Your task to perform on an android device: toggle translation in the chrome app Image 0: 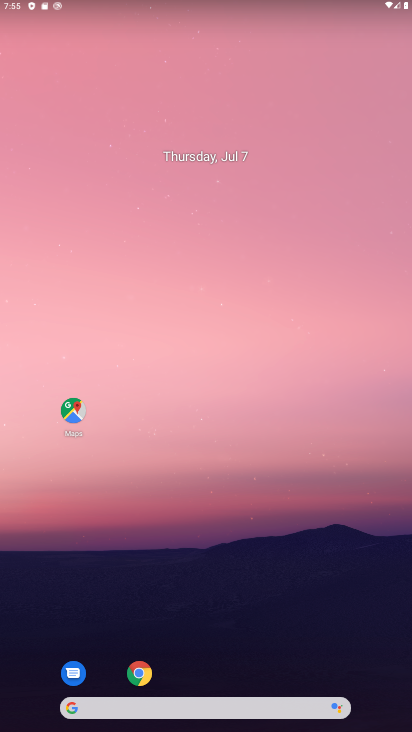
Step 0: drag from (195, 680) to (135, 680)
Your task to perform on an android device: toggle translation in the chrome app Image 1: 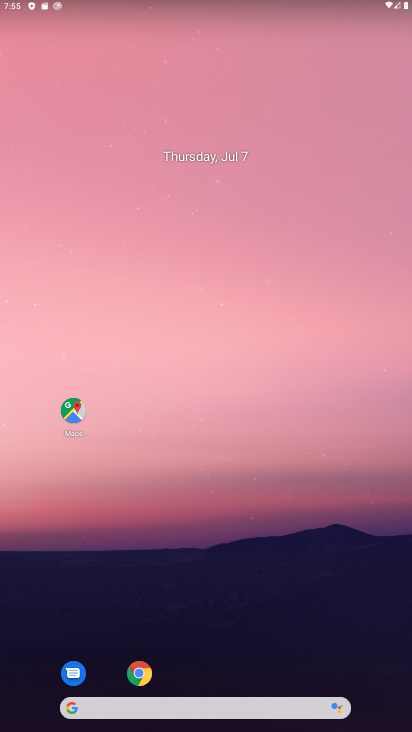
Step 1: click (141, 670)
Your task to perform on an android device: toggle translation in the chrome app Image 2: 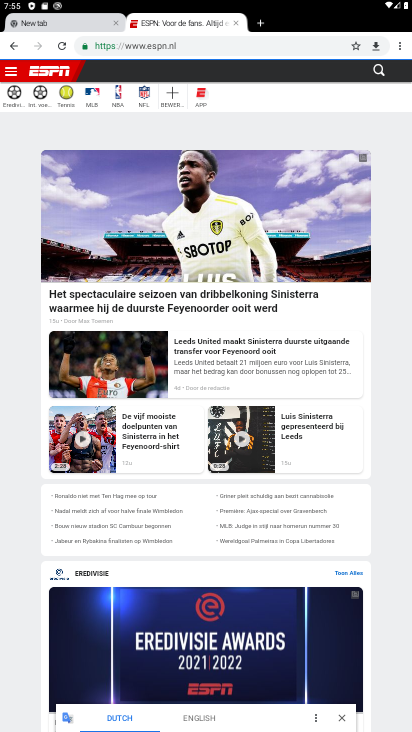
Step 2: drag from (401, 43) to (313, 293)
Your task to perform on an android device: toggle translation in the chrome app Image 3: 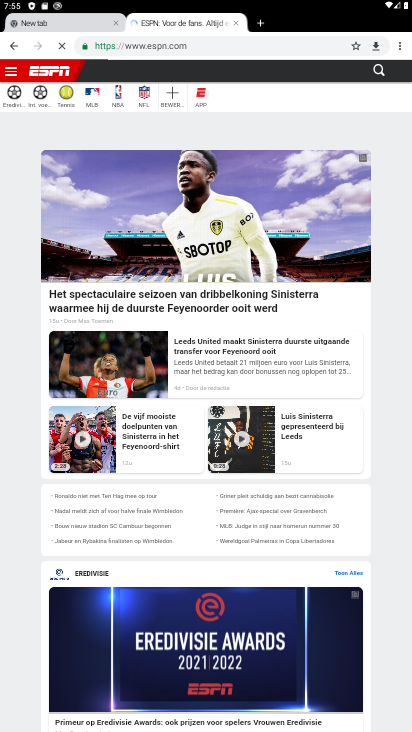
Step 3: drag from (399, 47) to (310, 308)
Your task to perform on an android device: toggle translation in the chrome app Image 4: 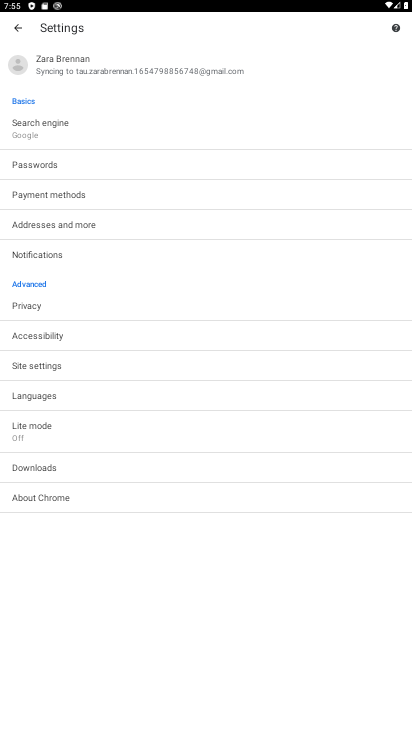
Step 4: click (36, 393)
Your task to perform on an android device: toggle translation in the chrome app Image 5: 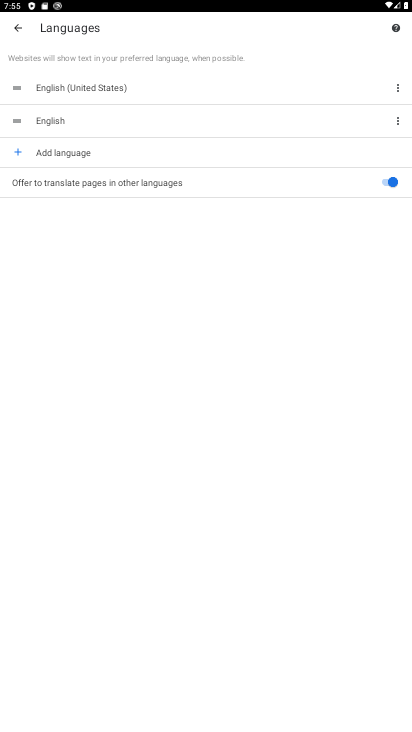
Step 5: click (387, 185)
Your task to perform on an android device: toggle translation in the chrome app Image 6: 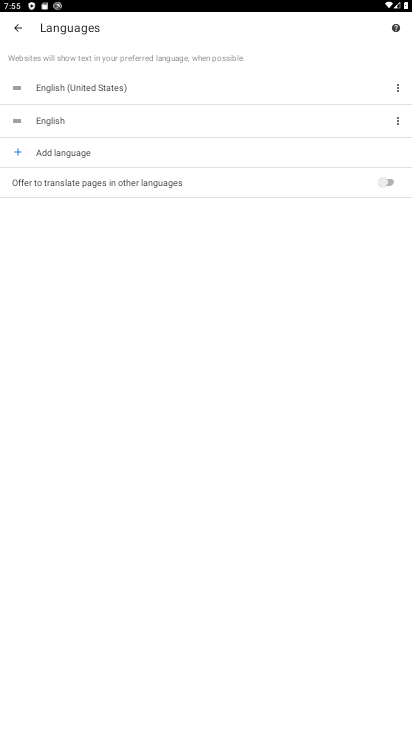
Step 6: task complete